Your task to perform on an android device: Turn on the flashlight Image 0: 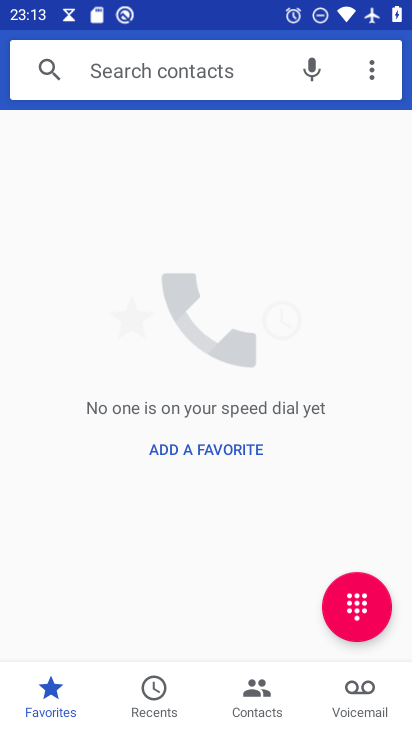
Step 0: press home button
Your task to perform on an android device: Turn on the flashlight Image 1: 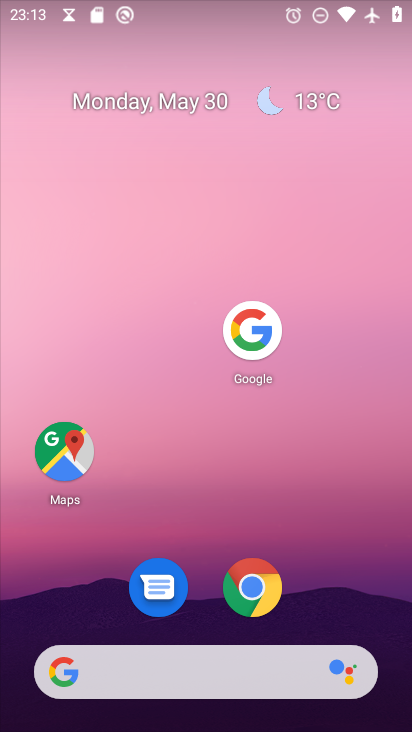
Step 1: task complete